Your task to perform on an android device: uninstall "McDonald's" Image 0: 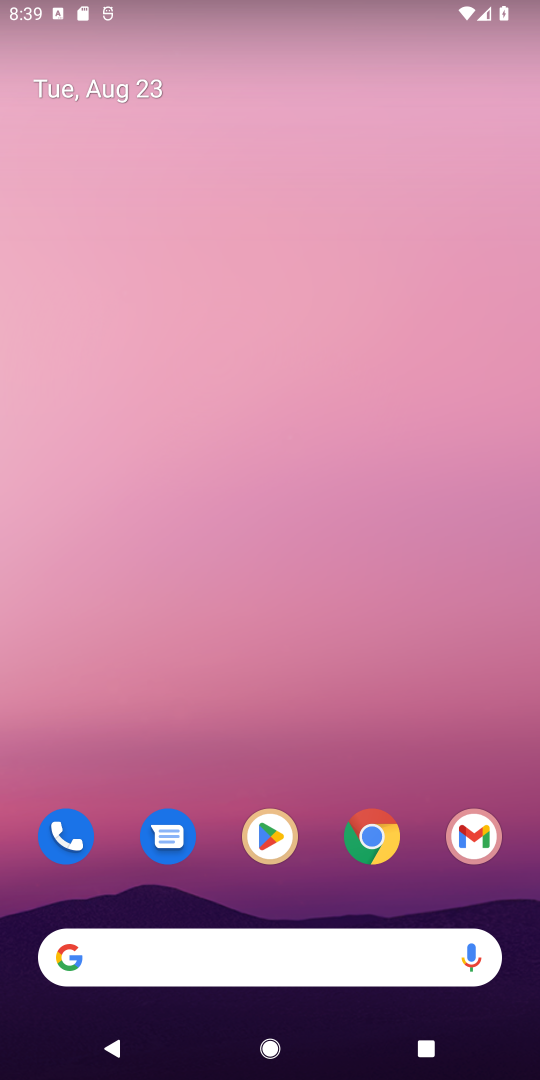
Step 0: click (270, 823)
Your task to perform on an android device: uninstall "McDonald's" Image 1: 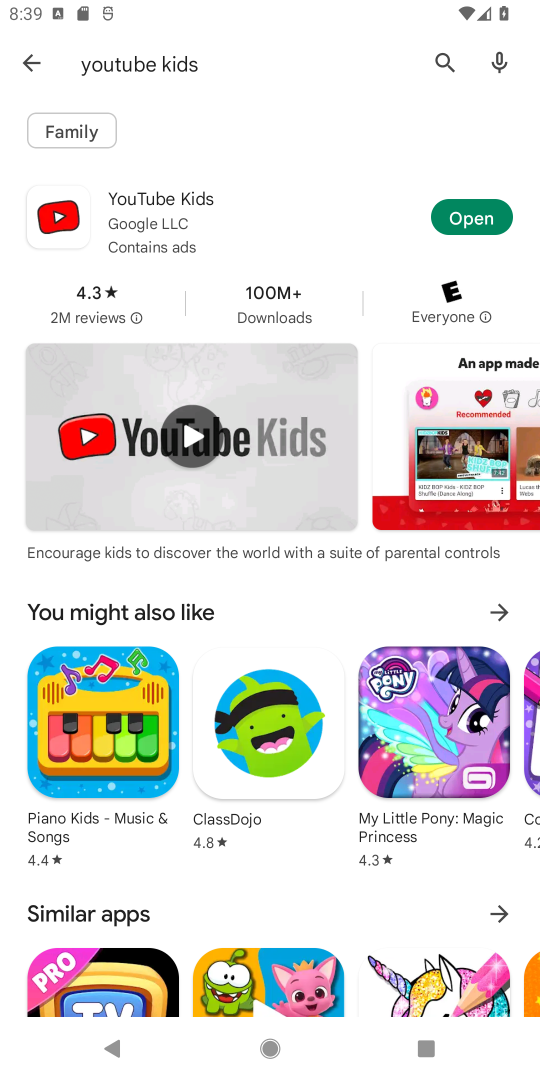
Step 1: click (444, 58)
Your task to perform on an android device: uninstall "McDonald's" Image 2: 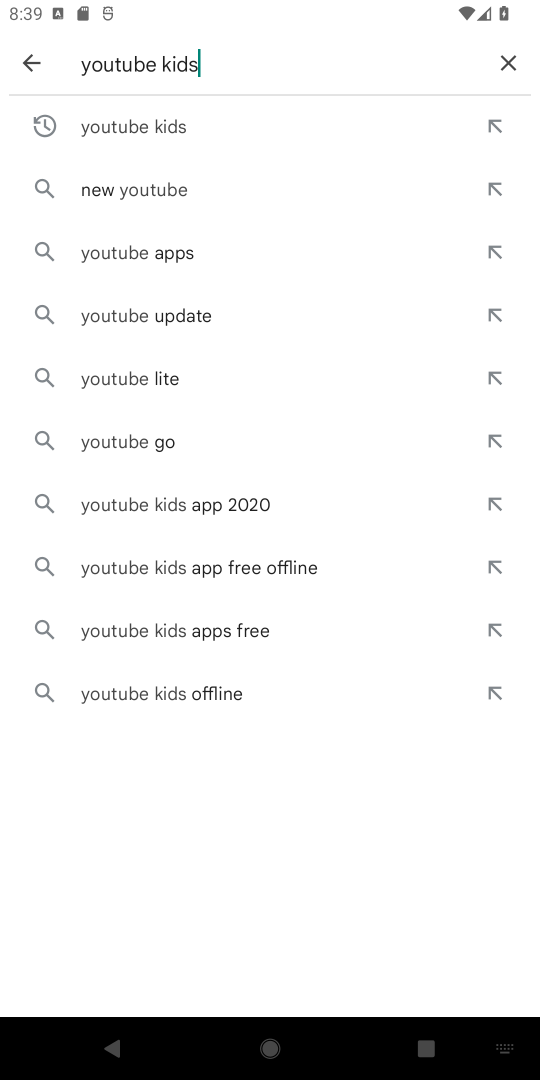
Step 2: click (508, 54)
Your task to perform on an android device: uninstall "McDonald's" Image 3: 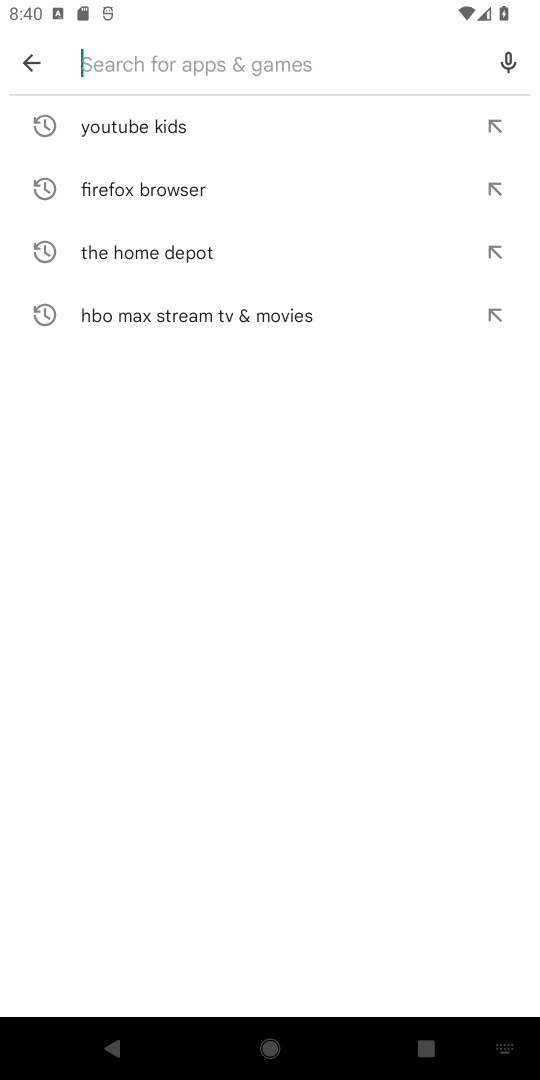
Step 3: type "McDonald's"
Your task to perform on an android device: uninstall "McDonald's" Image 4: 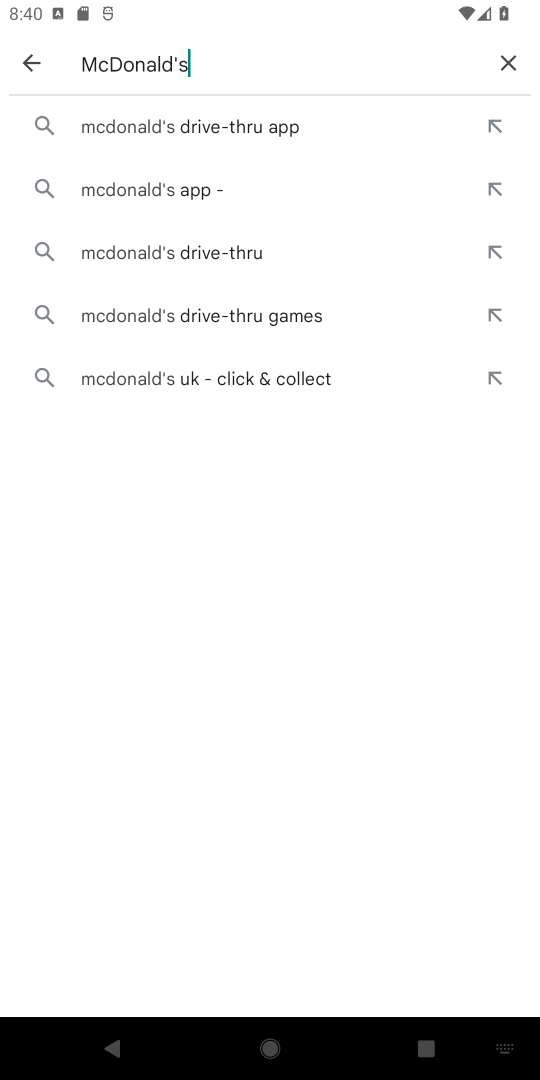
Step 4: click (148, 129)
Your task to perform on an android device: uninstall "McDonald's" Image 5: 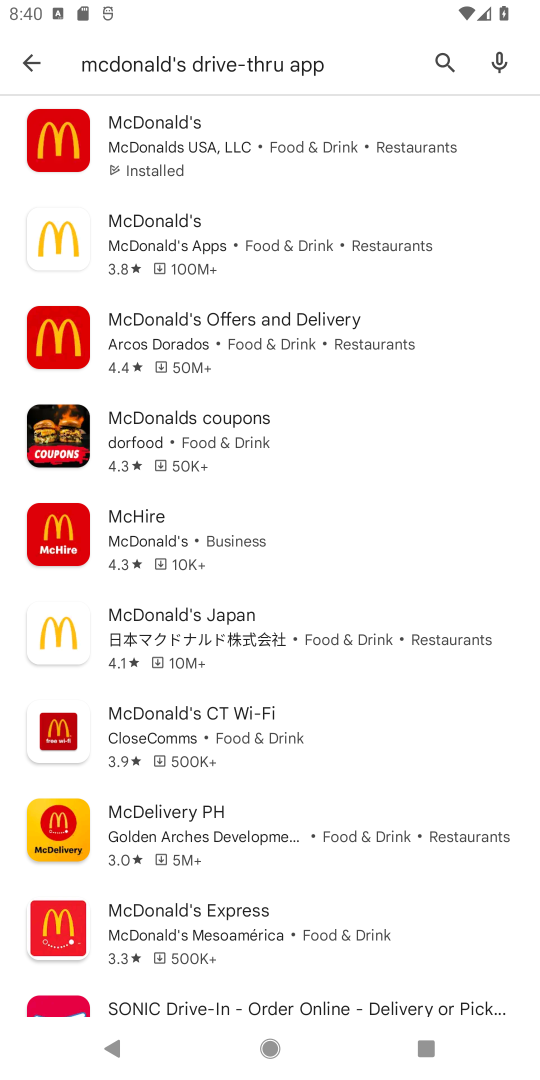
Step 5: click (185, 148)
Your task to perform on an android device: uninstall "McDonald's" Image 6: 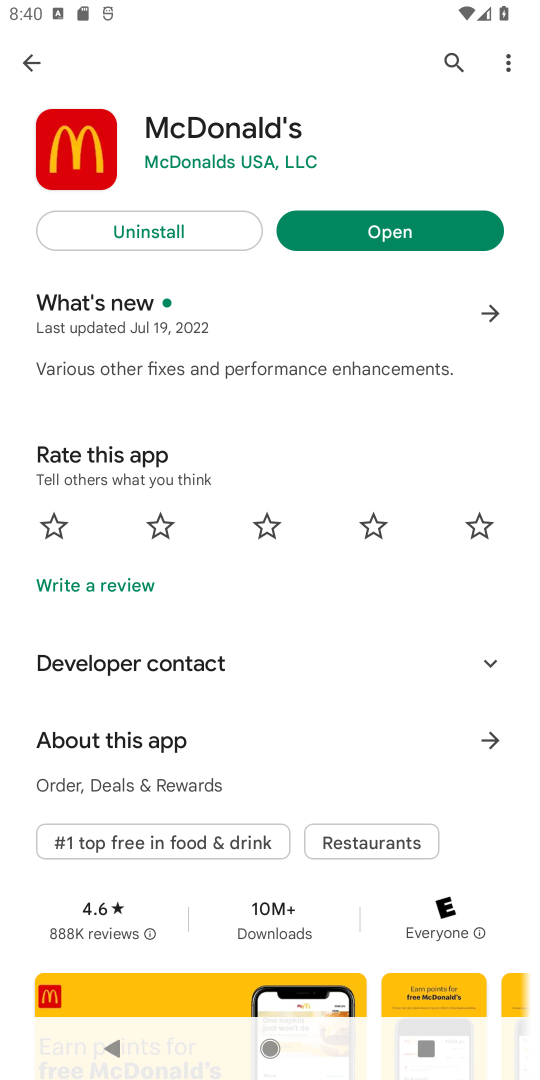
Step 6: click (163, 227)
Your task to perform on an android device: uninstall "McDonald's" Image 7: 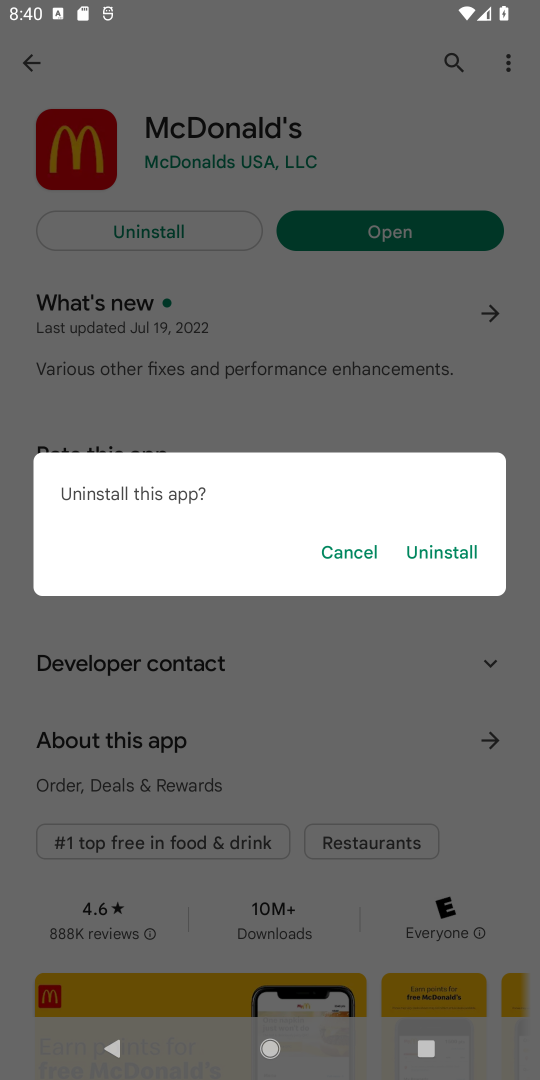
Step 7: click (432, 555)
Your task to perform on an android device: uninstall "McDonald's" Image 8: 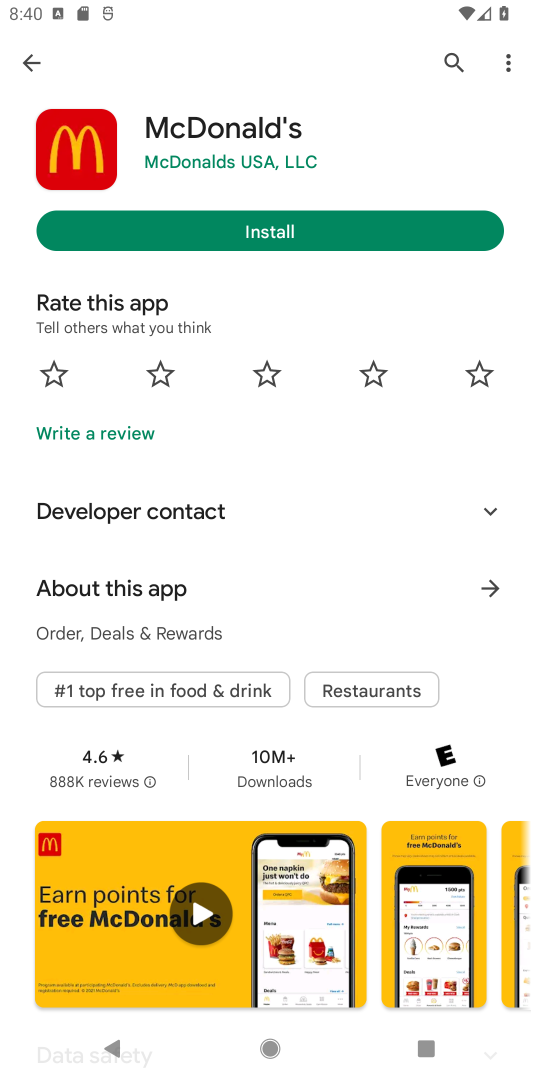
Step 8: task complete